Your task to perform on an android device: Open the calendar app, open the side menu, and click the "Day" option Image 0: 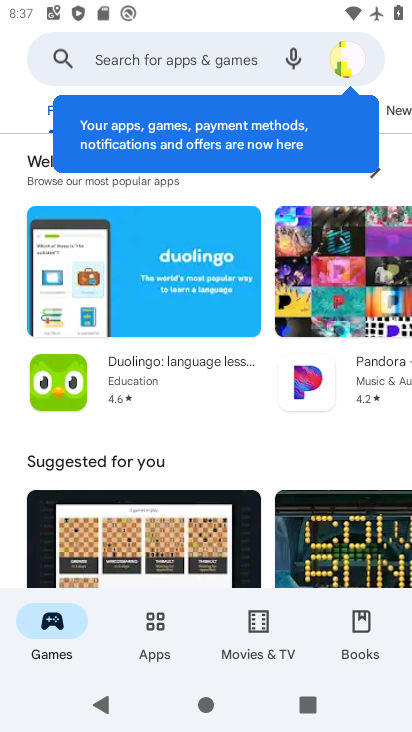
Step 0: press home button
Your task to perform on an android device: Open the calendar app, open the side menu, and click the "Day" option Image 1: 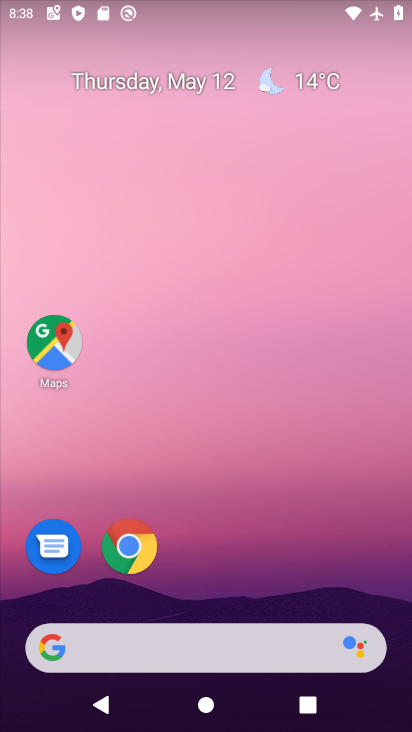
Step 1: drag from (188, 649) to (317, 170)
Your task to perform on an android device: Open the calendar app, open the side menu, and click the "Day" option Image 2: 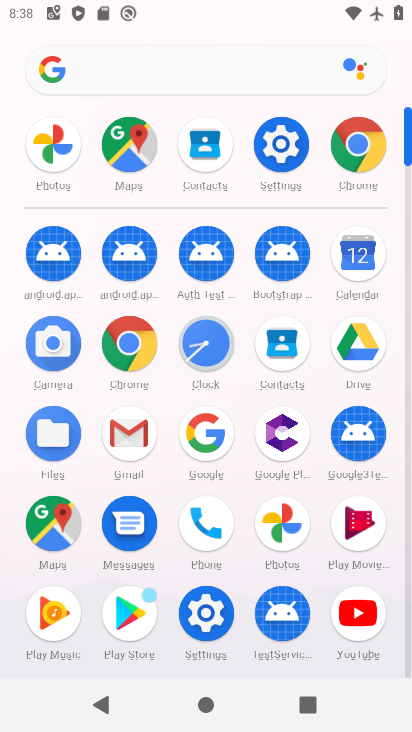
Step 2: click (358, 264)
Your task to perform on an android device: Open the calendar app, open the side menu, and click the "Day" option Image 3: 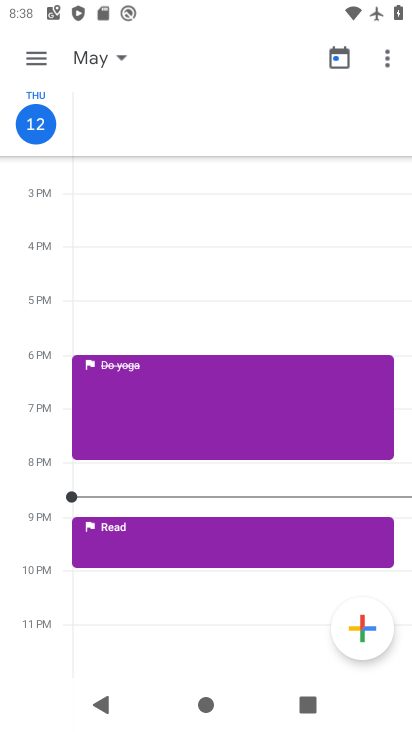
Step 3: click (54, 48)
Your task to perform on an android device: Open the calendar app, open the side menu, and click the "Day" option Image 4: 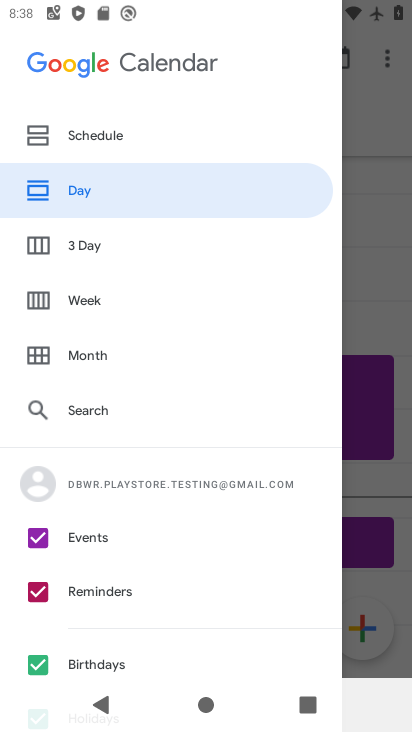
Step 4: click (86, 193)
Your task to perform on an android device: Open the calendar app, open the side menu, and click the "Day" option Image 5: 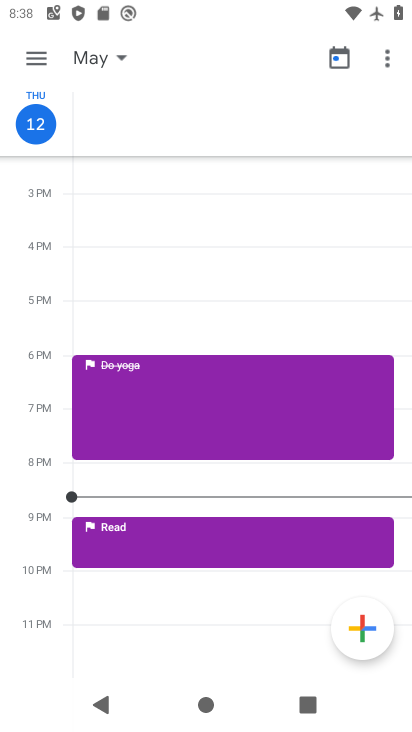
Step 5: task complete